Your task to perform on an android device: all mails in gmail Image 0: 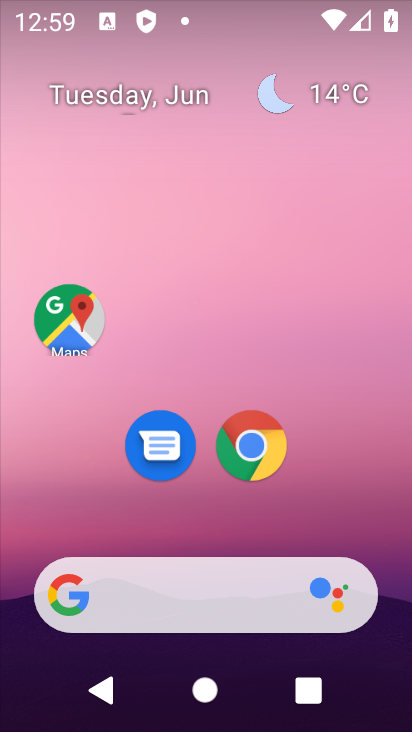
Step 0: drag from (188, 545) to (193, 346)
Your task to perform on an android device: all mails in gmail Image 1: 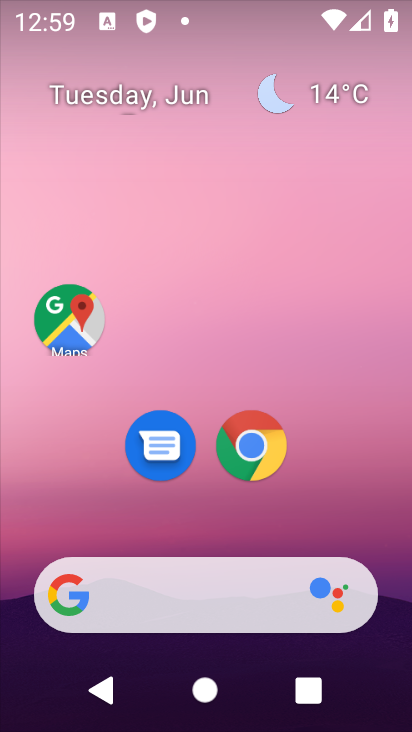
Step 1: drag from (193, 510) to (130, 159)
Your task to perform on an android device: all mails in gmail Image 2: 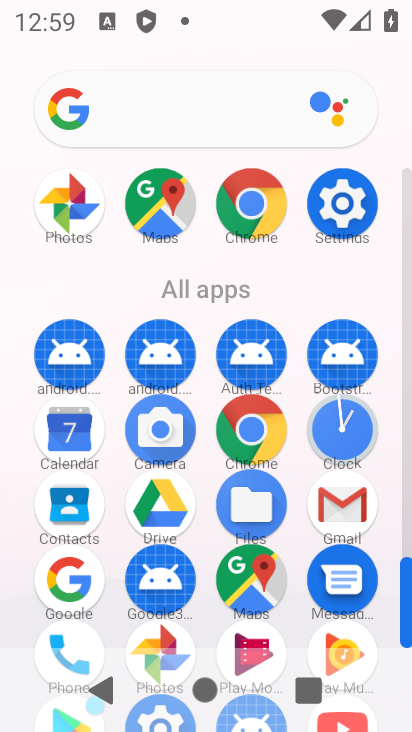
Step 2: click (346, 508)
Your task to perform on an android device: all mails in gmail Image 3: 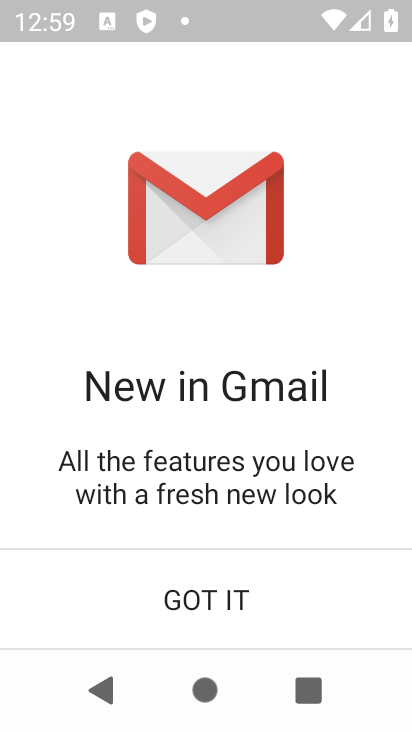
Step 3: click (212, 581)
Your task to perform on an android device: all mails in gmail Image 4: 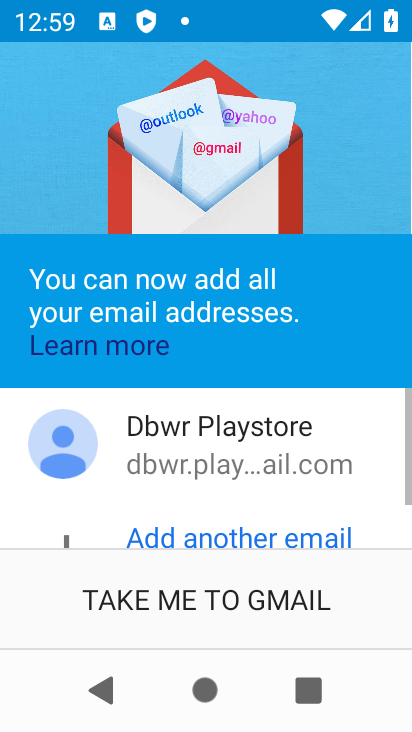
Step 4: click (212, 581)
Your task to perform on an android device: all mails in gmail Image 5: 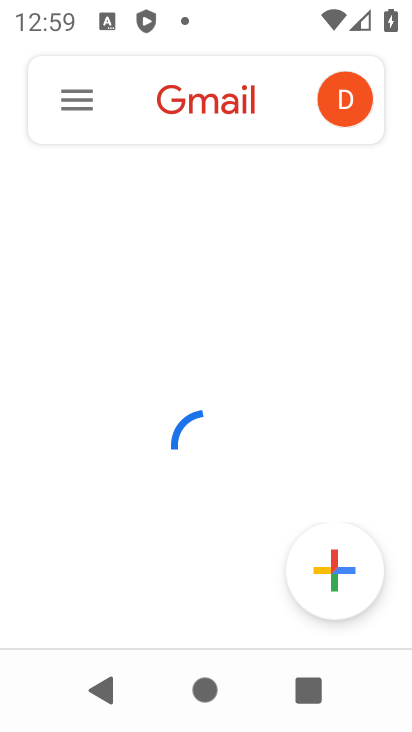
Step 5: click (78, 127)
Your task to perform on an android device: all mails in gmail Image 6: 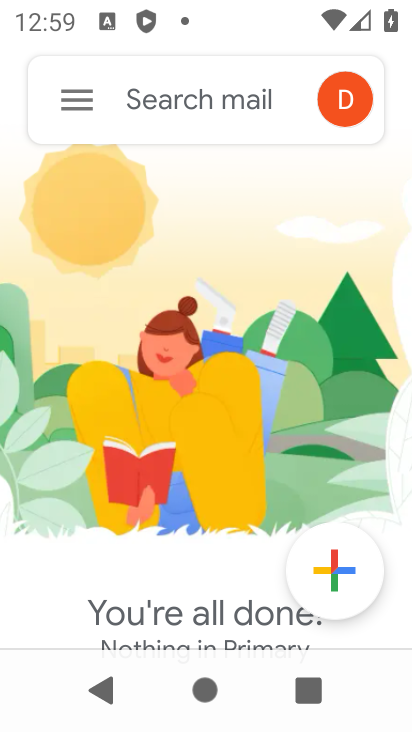
Step 6: click (83, 112)
Your task to perform on an android device: all mails in gmail Image 7: 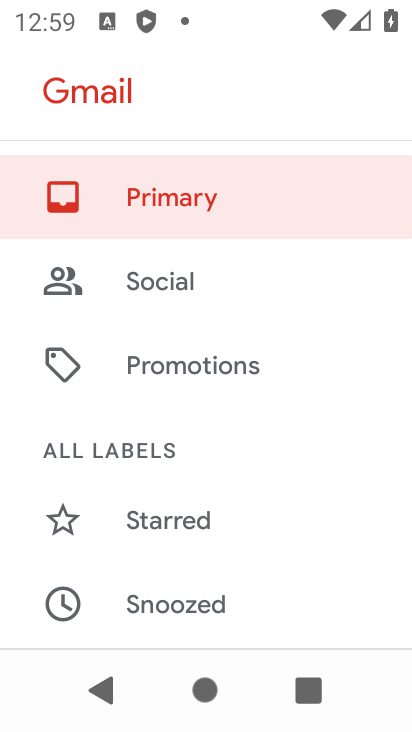
Step 7: drag from (144, 619) to (191, 164)
Your task to perform on an android device: all mails in gmail Image 8: 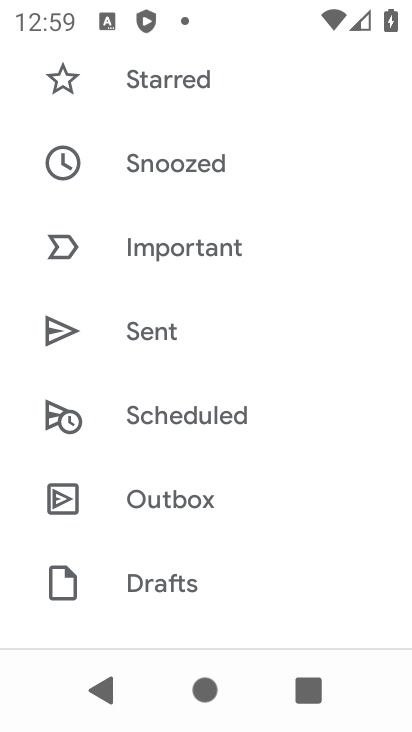
Step 8: drag from (99, 555) to (98, 105)
Your task to perform on an android device: all mails in gmail Image 9: 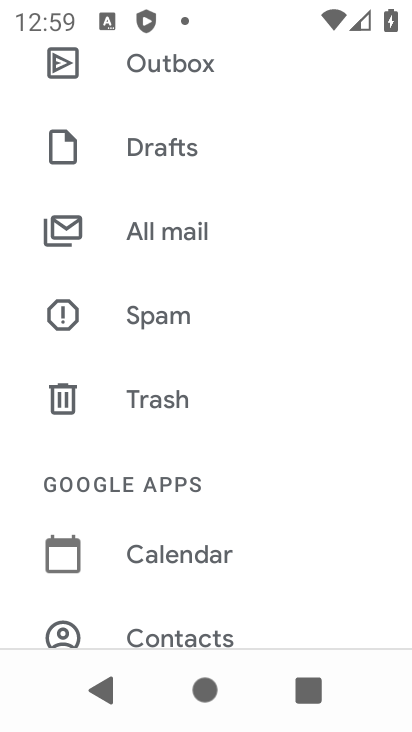
Step 9: click (192, 510)
Your task to perform on an android device: all mails in gmail Image 10: 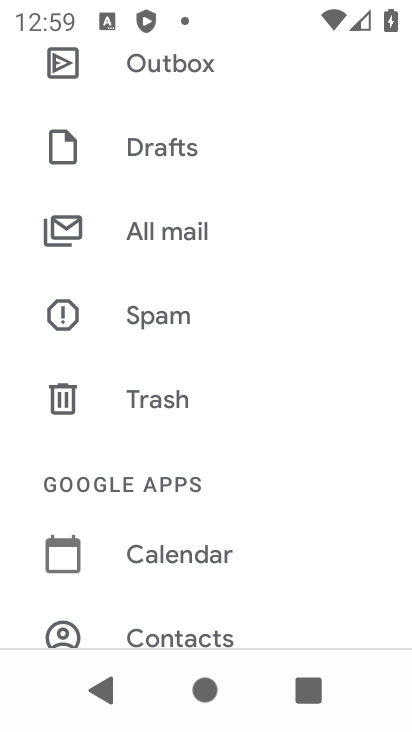
Step 10: click (193, 222)
Your task to perform on an android device: all mails in gmail Image 11: 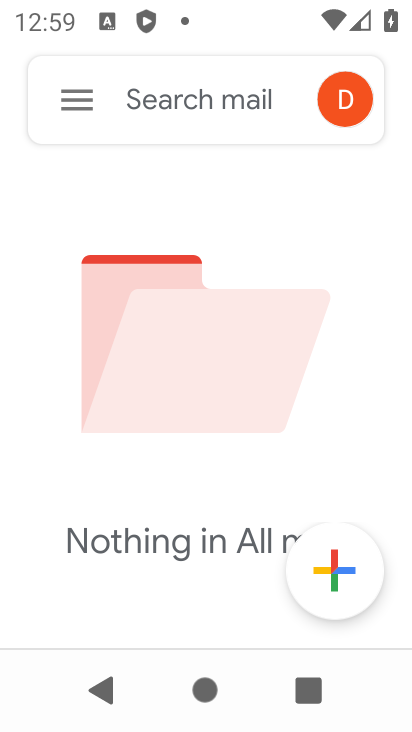
Step 11: task complete